Your task to perform on an android device: turn on improve location accuracy Image 0: 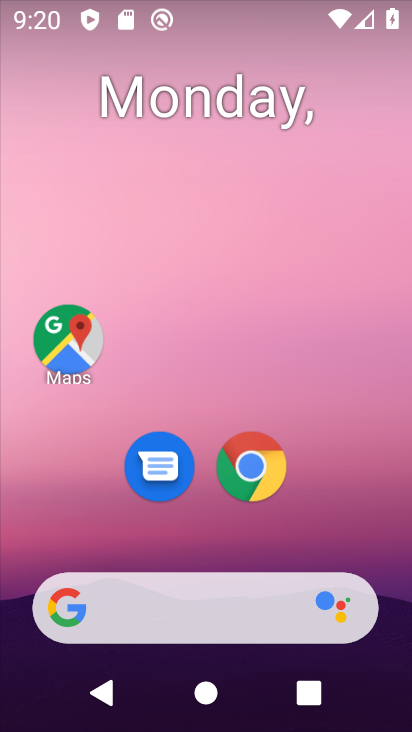
Step 0: drag from (79, 580) to (210, 28)
Your task to perform on an android device: turn on improve location accuracy Image 1: 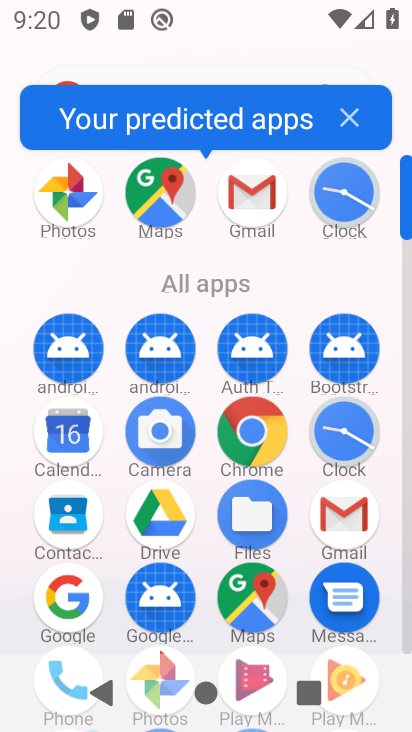
Step 1: drag from (171, 601) to (216, 343)
Your task to perform on an android device: turn on improve location accuracy Image 2: 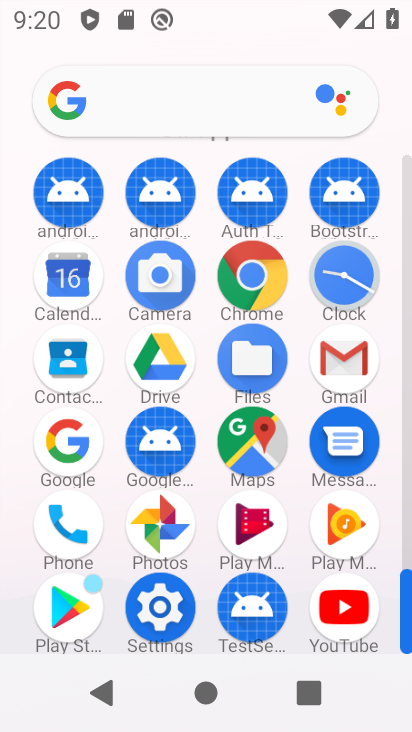
Step 2: click (160, 627)
Your task to perform on an android device: turn on improve location accuracy Image 3: 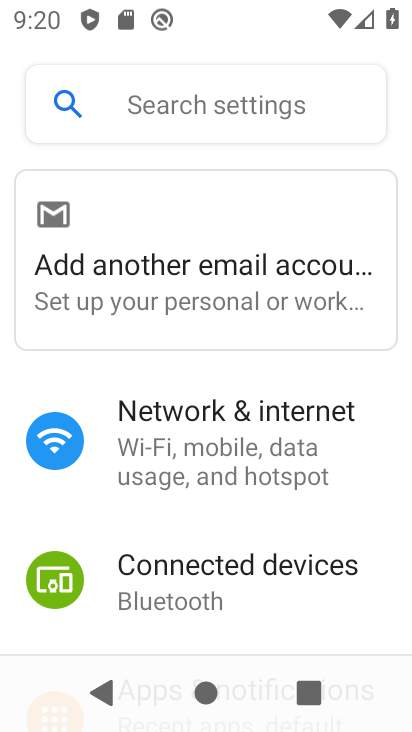
Step 3: drag from (154, 630) to (253, 157)
Your task to perform on an android device: turn on improve location accuracy Image 4: 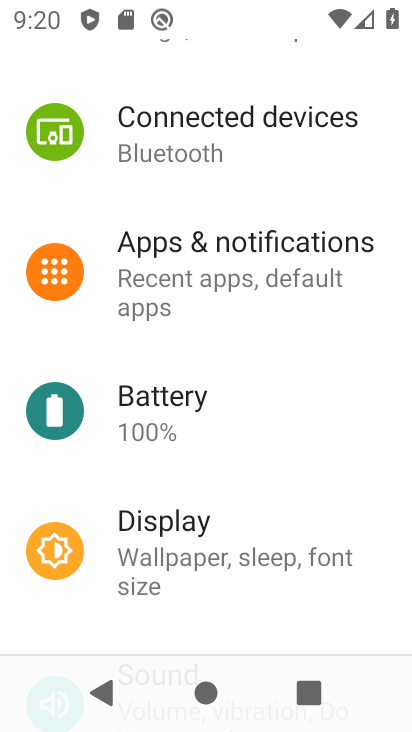
Step 4: drag from (191, 615) to (291, 161)
Your task to perform on an android device: turn on improve location accuracy Image 5: 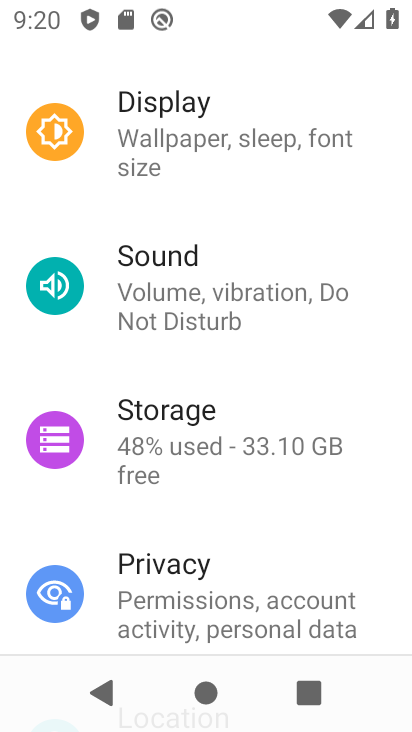
Step 5: drag from (204, 642) to (285, 164)
Your task to perform on an android device: turn on improve location accuracy Image 6: 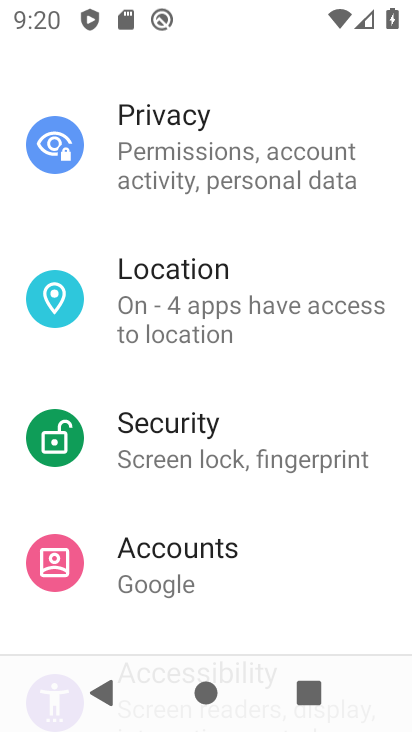
Step 6: drag from (167, 599) to (268, 157)
Your task to perform on an android device: turn on improve location accuracy Image 7: 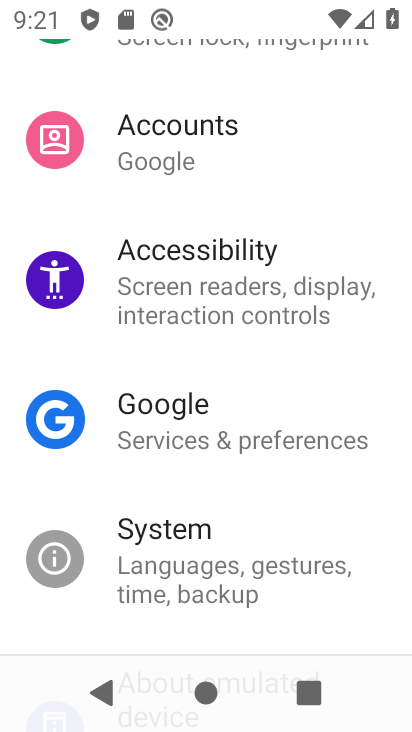
Step 7: drag from (107, 579) to (143, 712)
Your task to perform on an android device: turn on improve location accuracy Image 8: 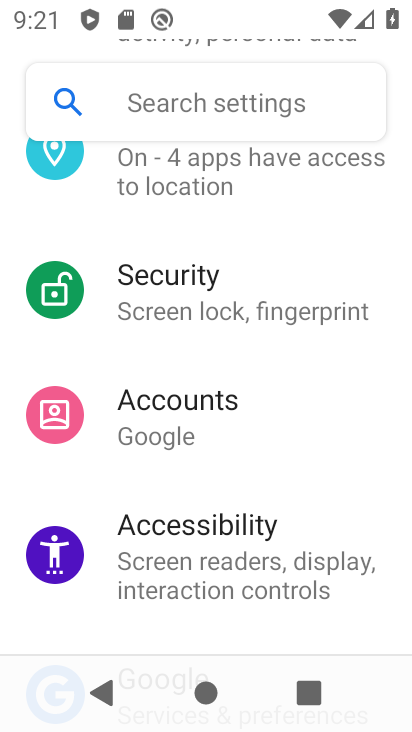
Step 8: drag from (165, 240) to (135, 558)
Your task to perform on an android device: turn on improve location accuracy Image 9: 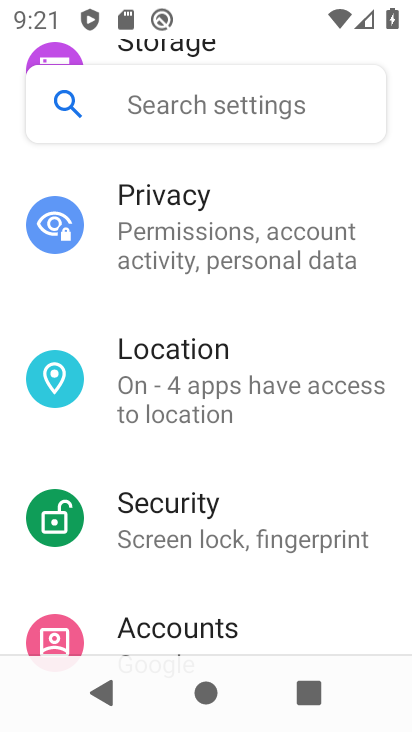
Step 9: click (196, 378)
Your task to perform on an android device: turn on improve location accuracy Image 10: 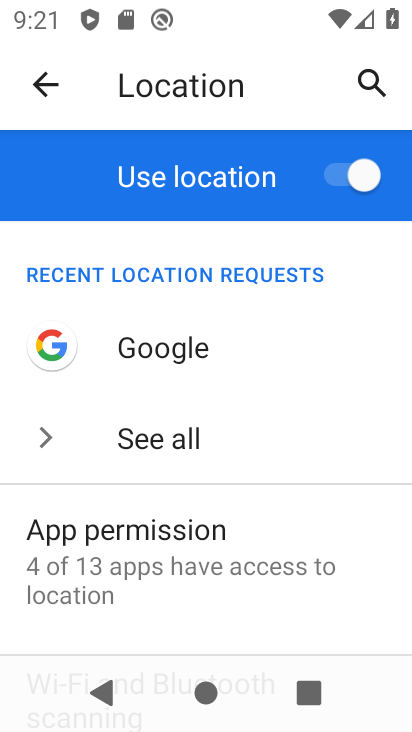
Step 10: drag from (177, 596) to (252, 276)
Your task to perform on an android device: turn on improve location accuracy Image 11: 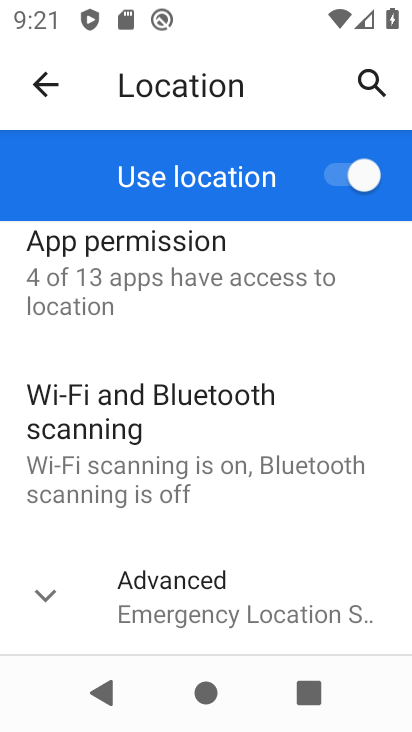
Step 11: click (195, 586)
Your task to perform on an android device: turn on improve location accuracy Image 12: 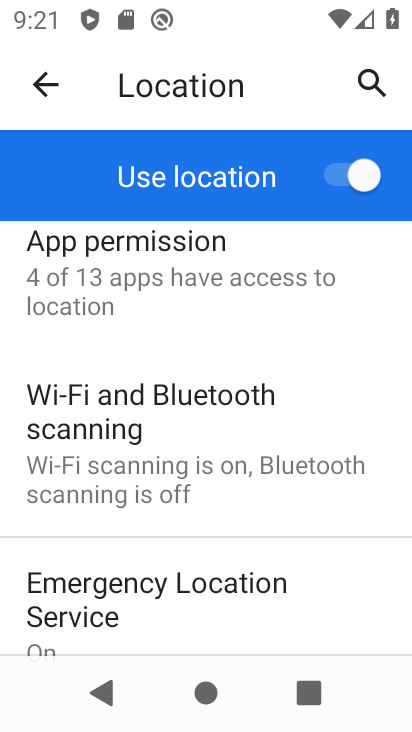
Step 12: drag from (165, 638) to (216, 417)
Your task to perform on an android device: turn on improve location accuracy Image 13: 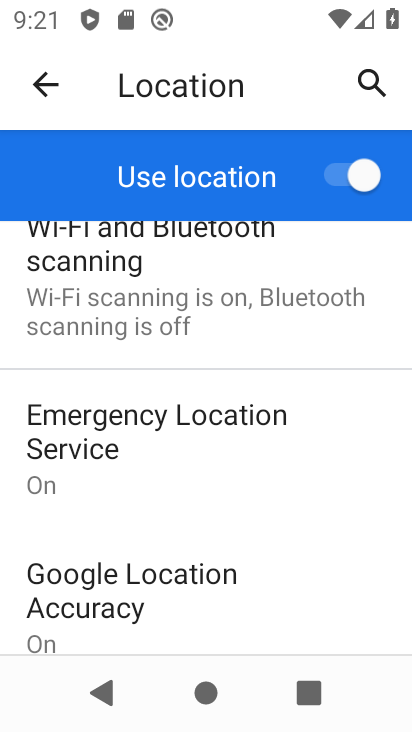
Step 13: drag from (161, 619) to (214, 416)
Your task to perform on an android device: turn on improve location accuracy Image 14: 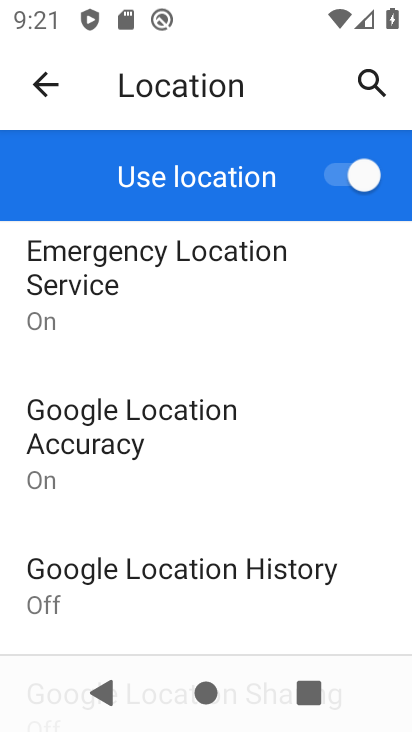
Step 14: drag from (191, 580) to (228, 386)
Your task to perform on an android device: turn on improve location accuracy Image 15: 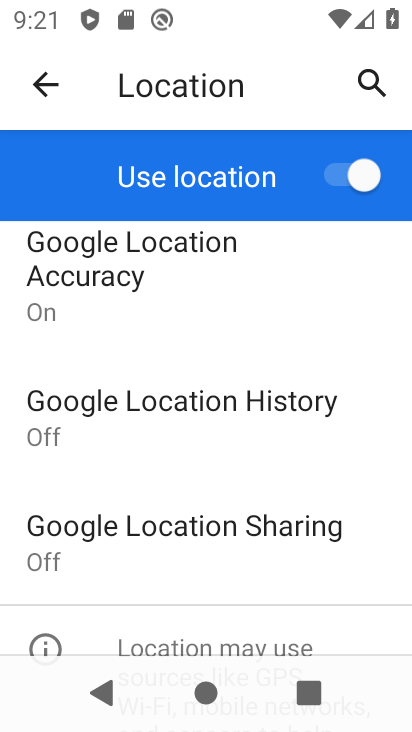
Step 15: click (197, 292)
Your task to perform on an android device: turn on improve location accuracy Image 16: 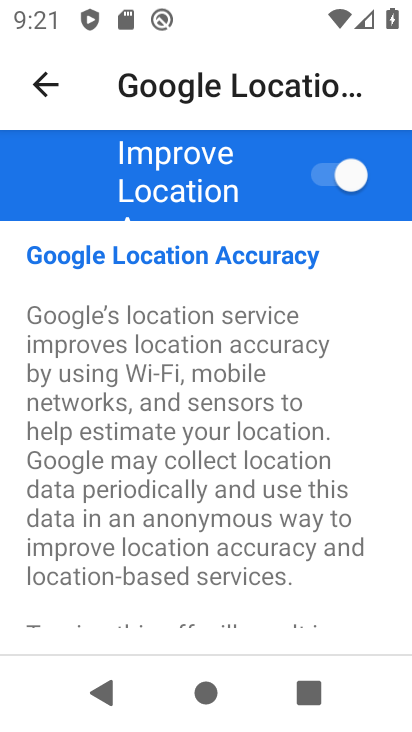
Step 16: task complete